Your task to perform on an android device: Show me productivity apps on the Play Store Image 0: 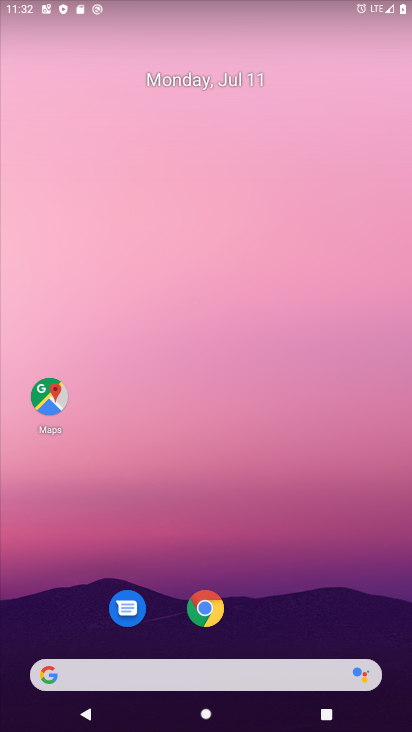
Step 0: drag from (38, 702) to (324, 7)
Your task to perform on an android device: Show me productivity apps on the Play Store Image 1: 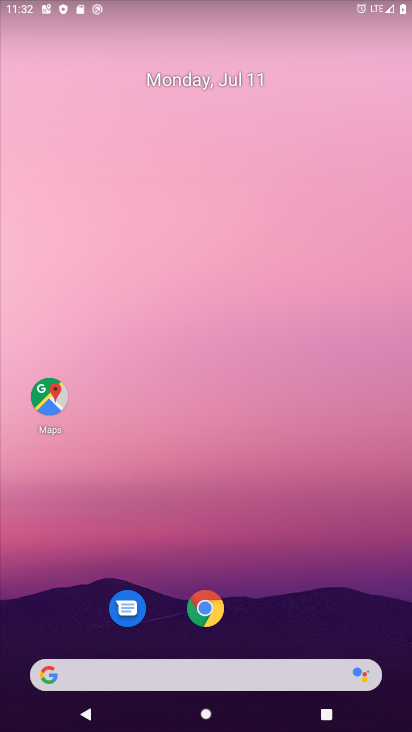
Step 1: drag from (60, 589) to (221, 10)
Your task to perform on an android device: Show me productivity apps on the Play Store Image 2: 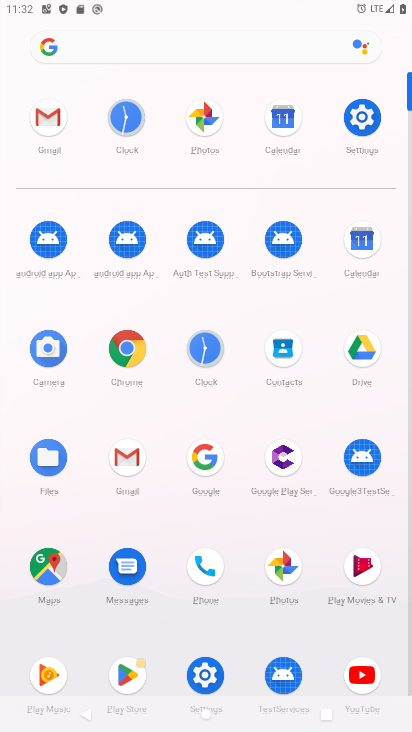
Step 2: click (122, 673)
Your task to perform on an android device: Show me productivity apps on the Play Store Image 3: 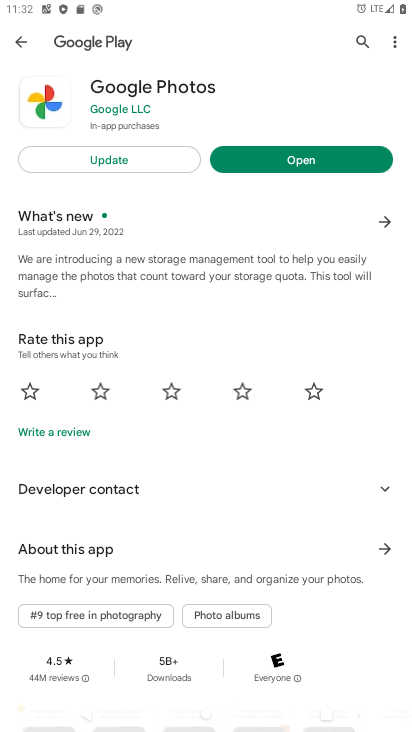
Step 3: click (23, 42)
Your task to perform on an android device: Show me productivity apps on the Play Store Image 4: 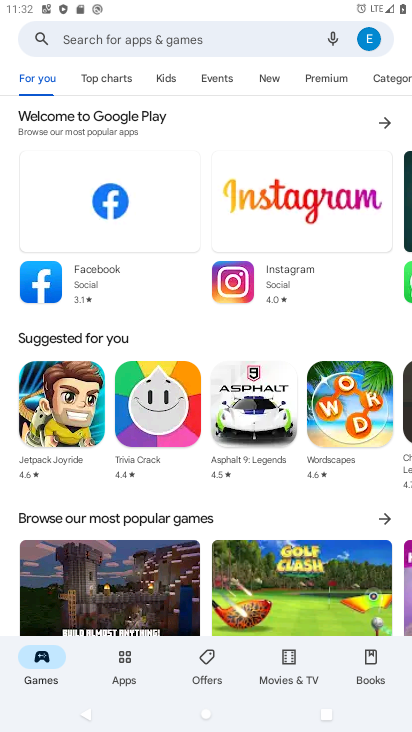
Step 4: click (111, 43)
Your task to perform on an android device: Show me productivity apps on the Play Store Image 5: 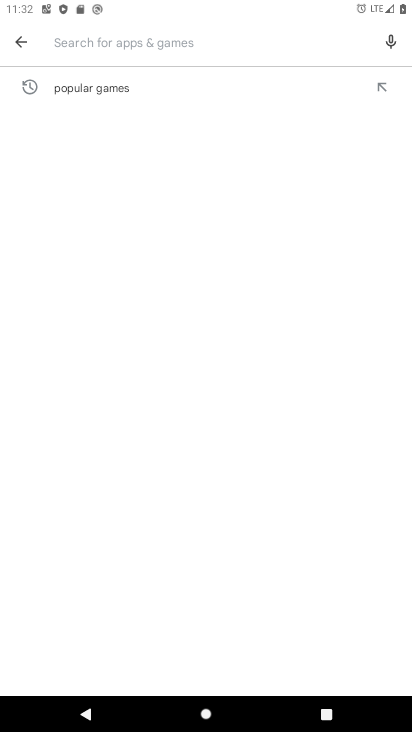
Step 5: type "productivity apps"
Your task to perform on an android device: Show me productivity apps on the Play Store Image 6: 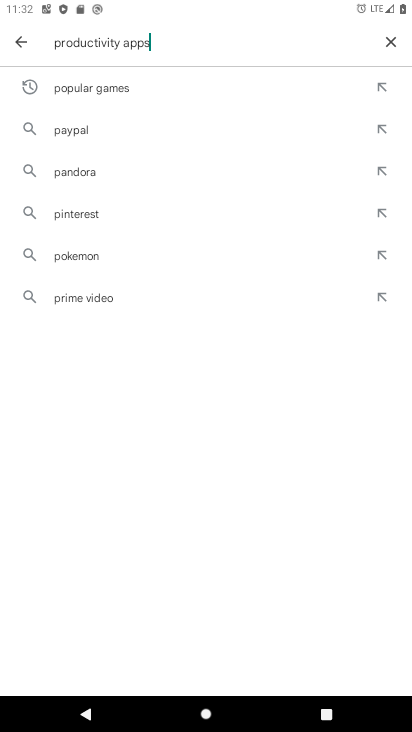
Step 6: type ""
Your task to perform on an android device: Show me productivity apps on the Play Store Image 7: 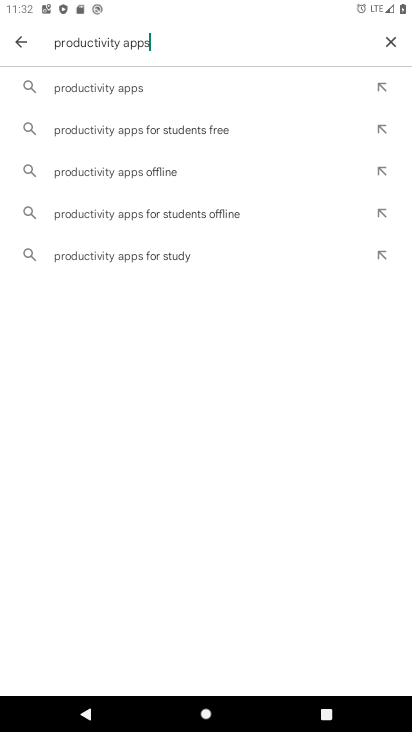
Step 7: click (70, 78)
Your task to perform on an android device: Show me productivity apps on the Play Store Image 8: 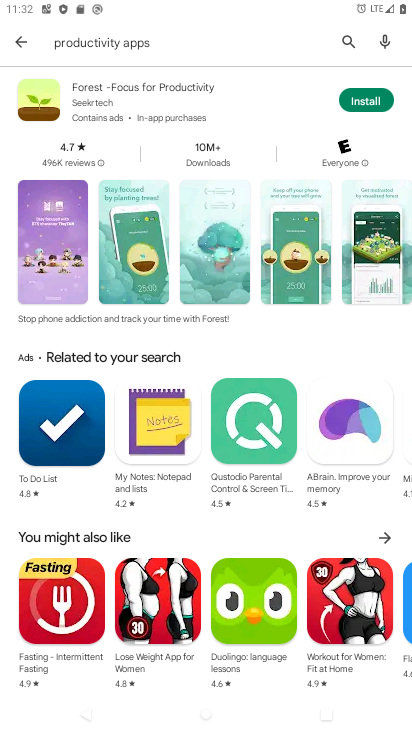
Step 8: task complete